Your task to perform on an android device: Show me recent news Image 0: 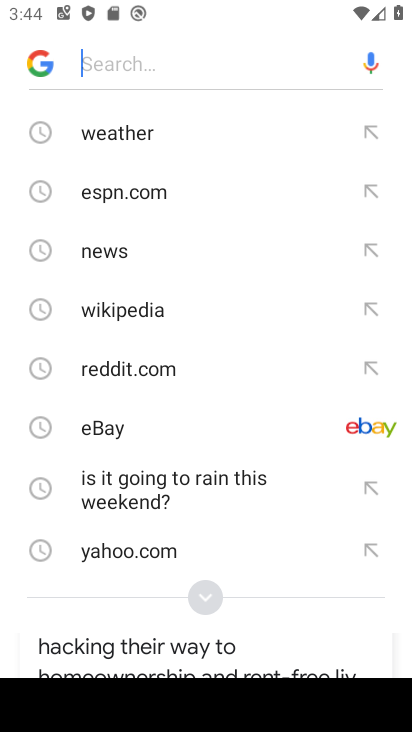
Step 0: press back button
Your task to perform on an android device: Show me recent news Image 1: 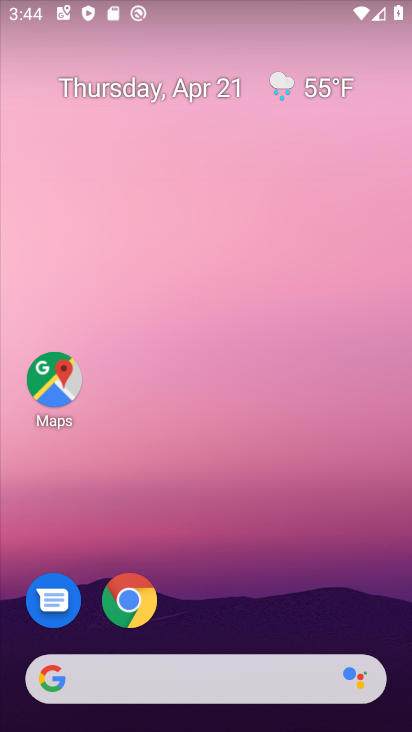
Step 1: task complete